Your task to perform on an android device: What is the news today? Image 0: 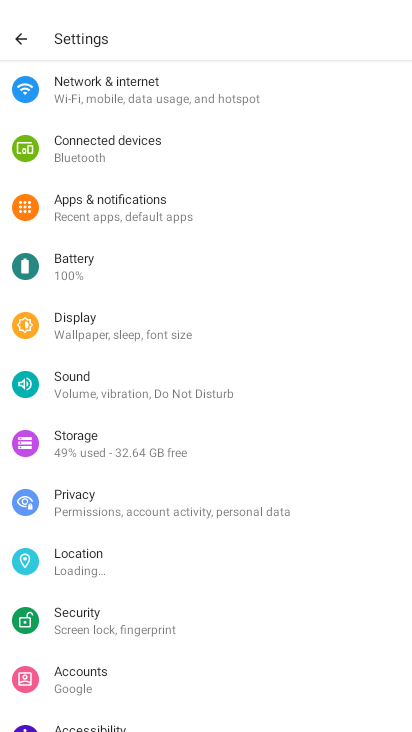
Step 0: press home button
Your task to perform on an android device: What is the news today? Image 1: 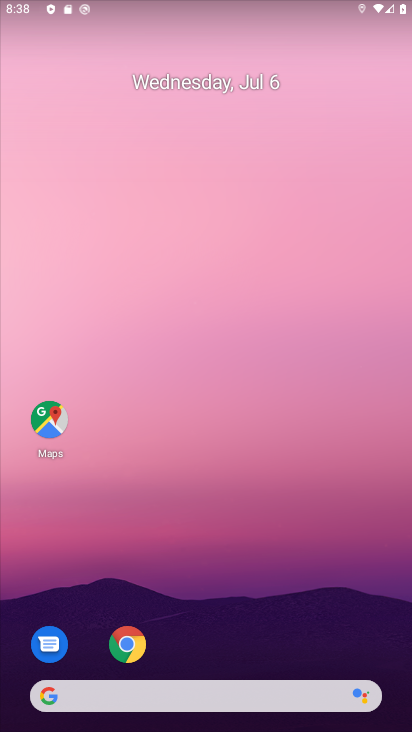
Step 1: task complete